Your task to perform on an android device: Go to sound settings Image 0: 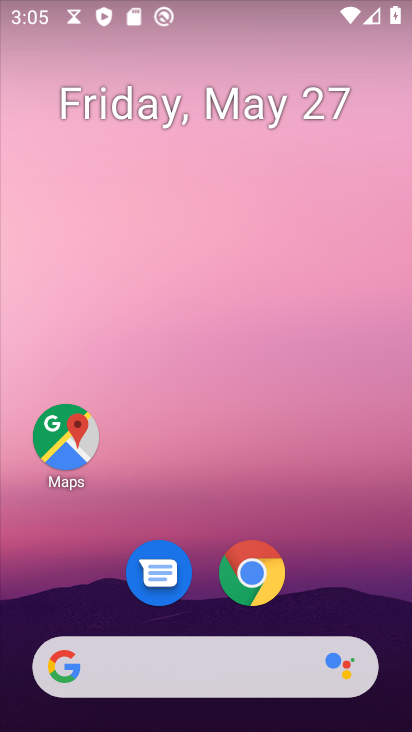
Step 0: drag from (200, 589) to (186, 0)
Your task to perform on an android device: Go to sound settings Image 1: 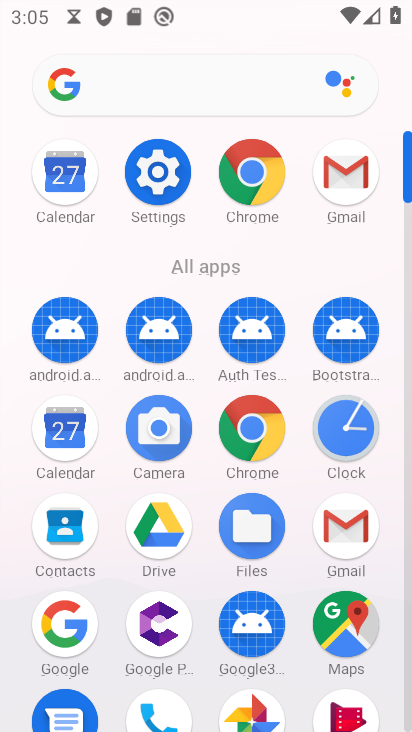
Step 1: click (156, 179)
Your task to perform on an android device: Go to sound settings Image 2: 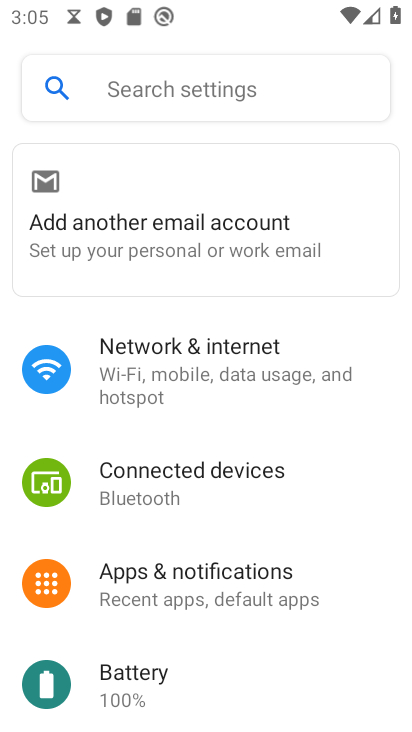
Step 2: drag from (167, 643) to (182, 203)
Your task to perform on an android device: Go to sound settings Image 3: 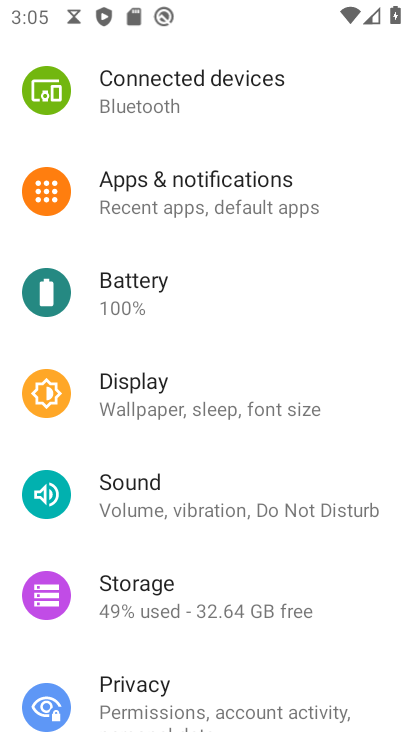
Step 3: click (137, 501)
Your task to perform on an android device: Go to sound settings Image 4: 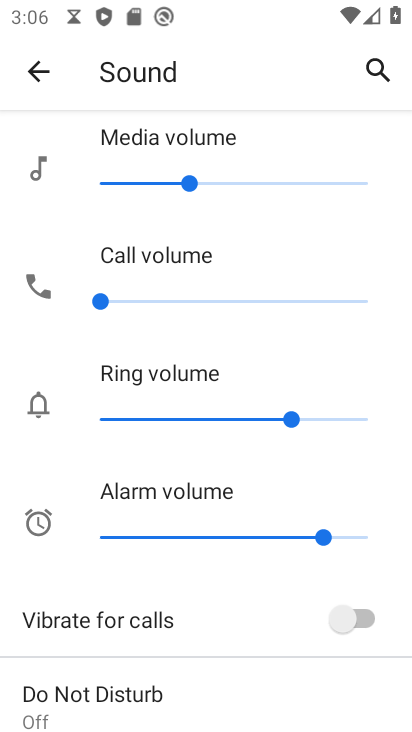
Step 4: task complete